Your task to perform on an android device: empty trash in the gmail app Image 0: 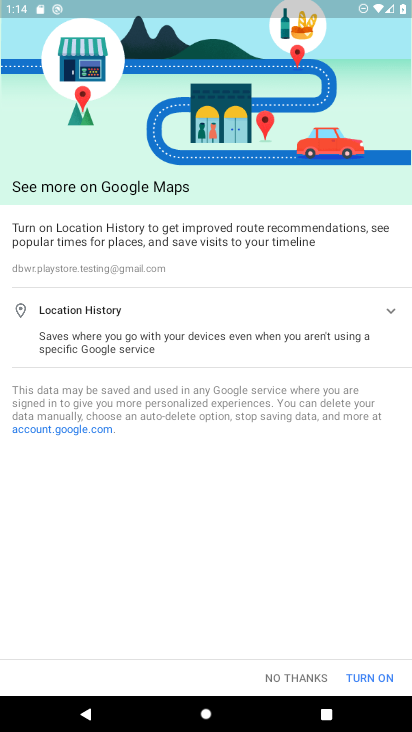
Step 0: press home button
Your task to perform on an android device: empty trash in the gmail app Image 1: 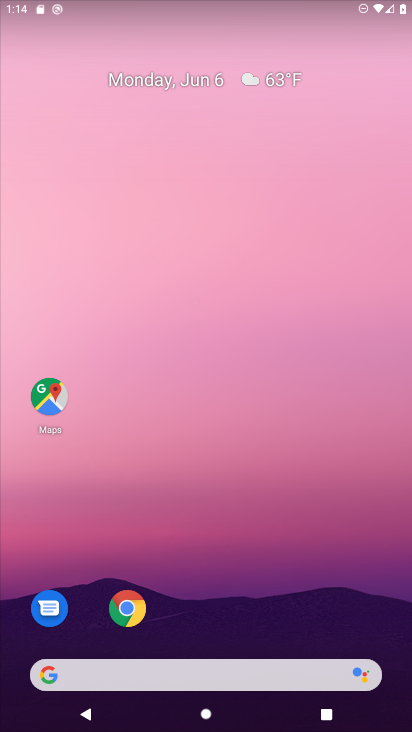
Step 1: drag from (242, 611) to (177, 155)
Your task to perform on an android device: empty trash in the gmail app Image 2: 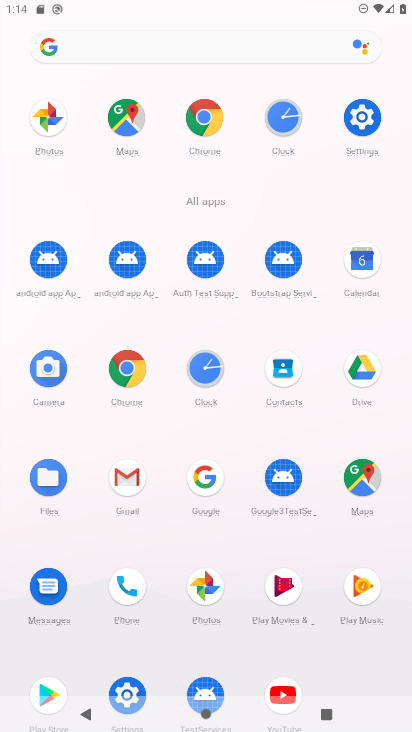
Step 2: click (125, 484)
Your task to perform on an android device: empty trash in the gmail app Image 3: 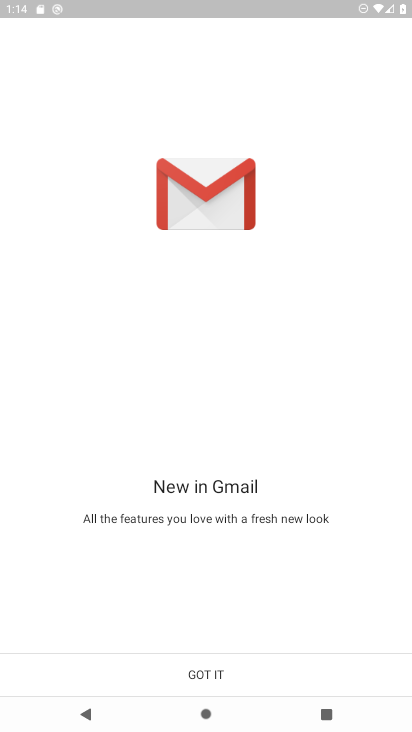
Step 3: click (213, 678)
Your task to perform on an android device: empty trash in the gmail app Image 4: 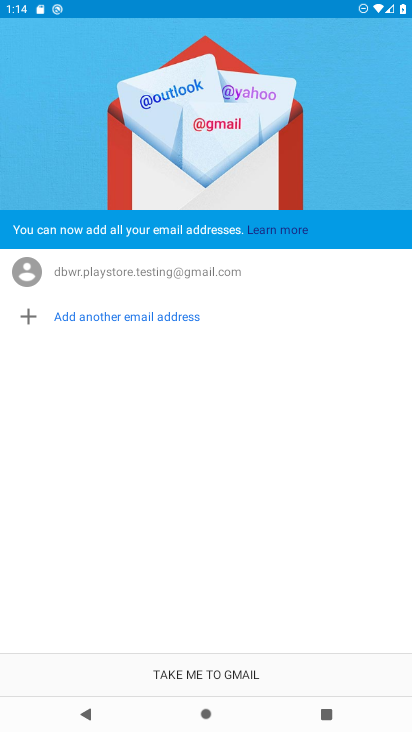
Step 4: click (214, 678)
Your task to perform on an android device: empty trash in the gmail app Image 5: 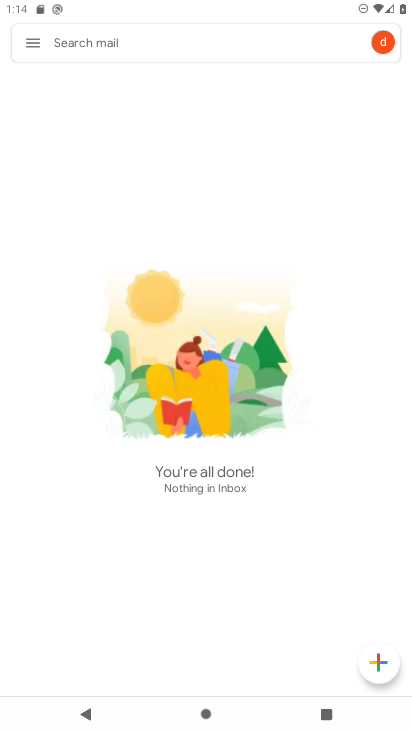
Step 5: click (25, 37)
Your task to perform on an android device: empty trash in the gmail app Image 6: 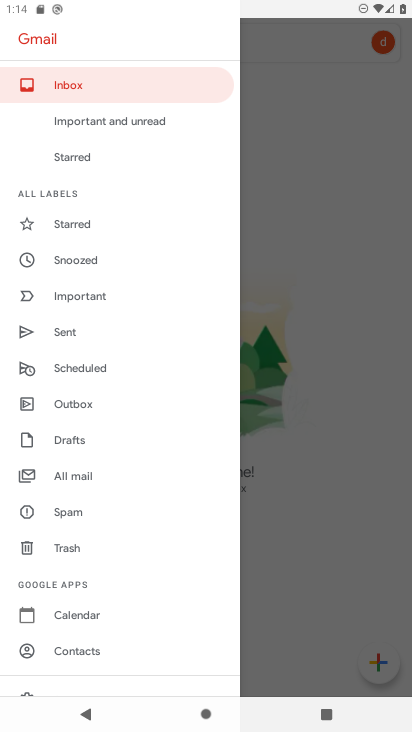
Step 6: click (66, 543)
Your task to perform on an android device: empty trash in the gmail app Image 7: 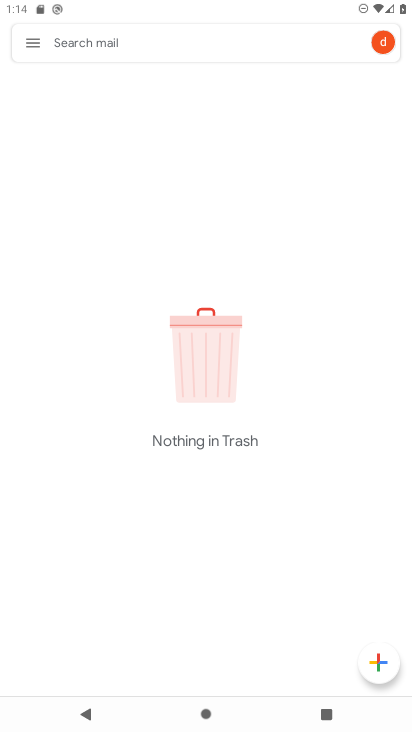
Step 7: task complete